Your task to perform on an android device: What is the news today? Image 0: 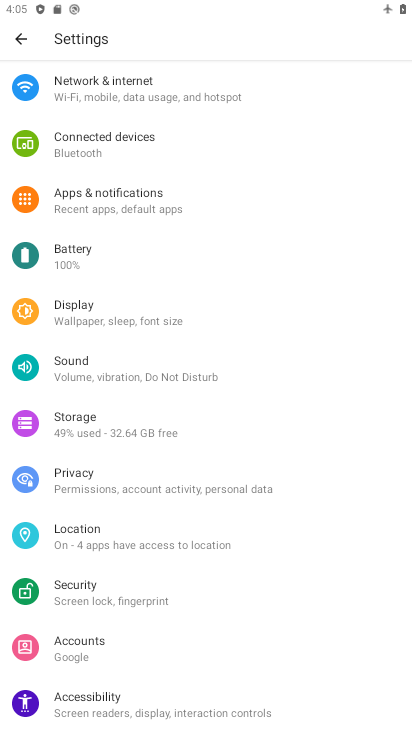
Step 0: press home button
Your task to perform on an android device: What is the news today? Image 1: 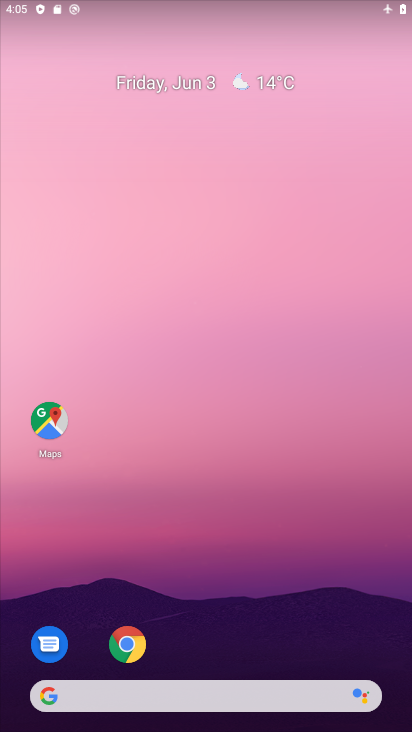
Step 1: click (167, 702)
Your task to perform on an android device: What is the news today? Image 2: 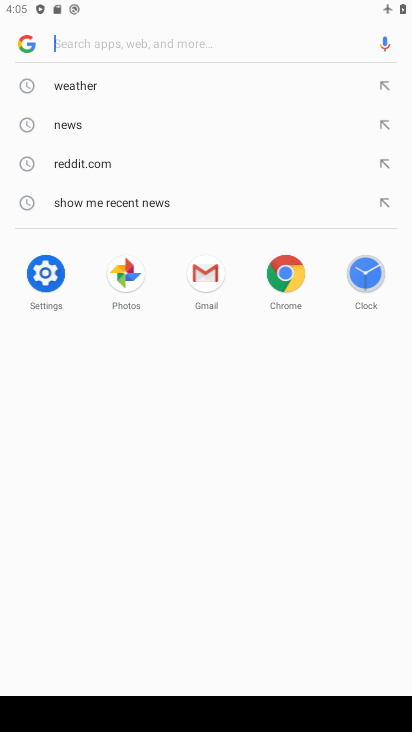
Step 2: click (72, 128)
Your task to perform on an android device: What is the news today? Image 3: 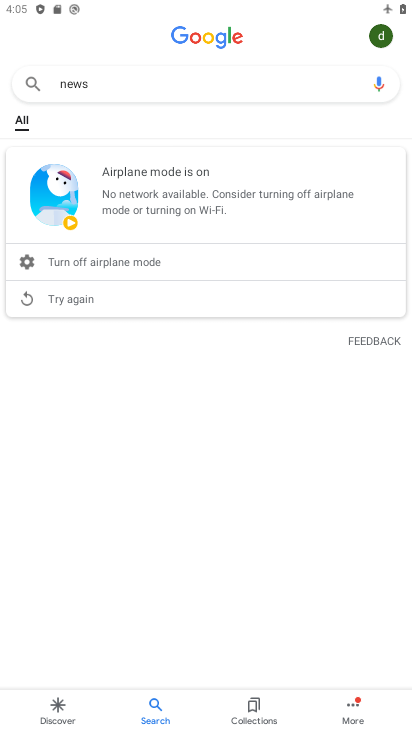
Step 3: drag from (301, 8) to (326, 637)
Your task to perform on an android device: What is the news today? Image 4: 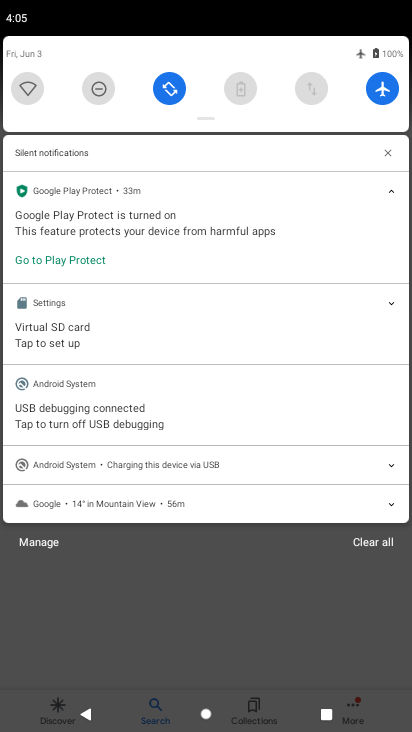
Step 4: click (381, 93)
Your task to perform on an android device: What is the news today? Image 5: 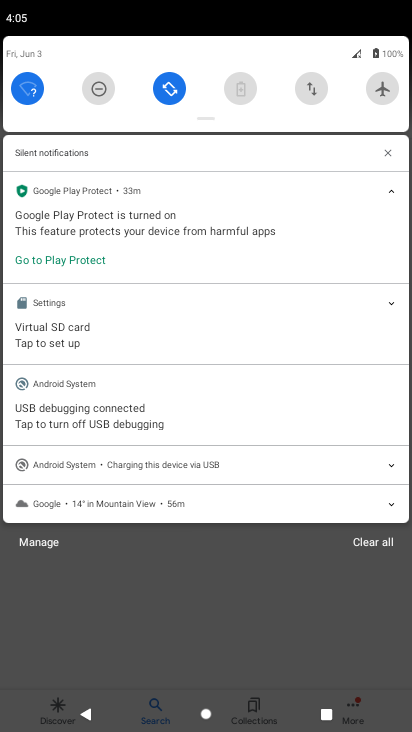
Step 5: task complete